Your task to perform on an android device: Search for pizza restaurants on Maps Image 0: 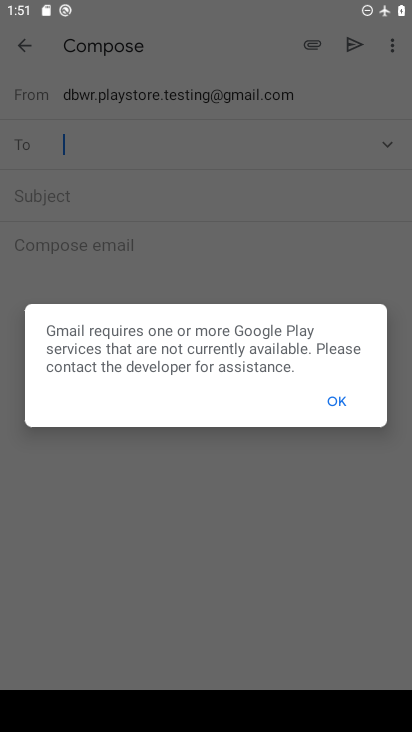
Step 0: press home button
Your task to perform on an android device: Search for pizza restaurants on Maps Image 1: 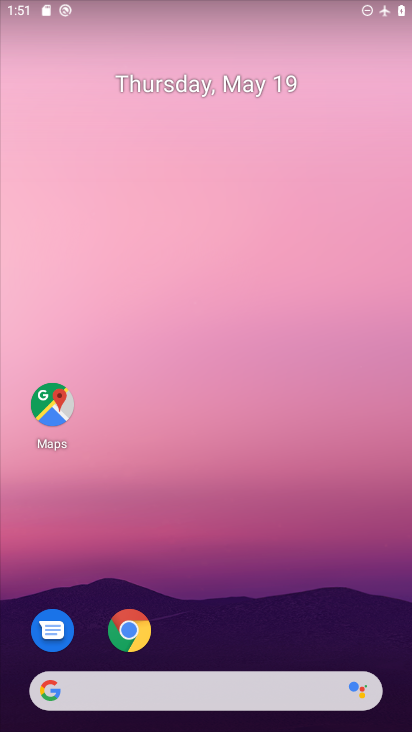
Step 1: click (60, 408)
Your task to perform on an android device: Search for pizza restaurants on Maps Image 2: 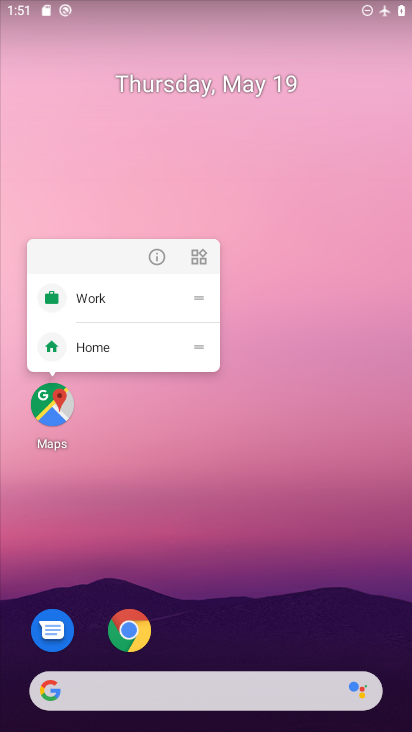
Step 2: click (60, 401)
Your task to perform on an android device: Search for pizza restaurants on Maps Image 3: 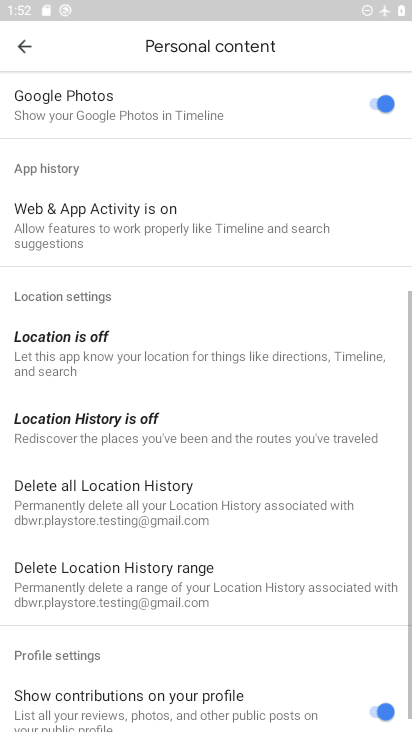
Step 3: click (18, 49)
Your task to perform on an android device: Search for pizza restaurants on Maps Image 4: 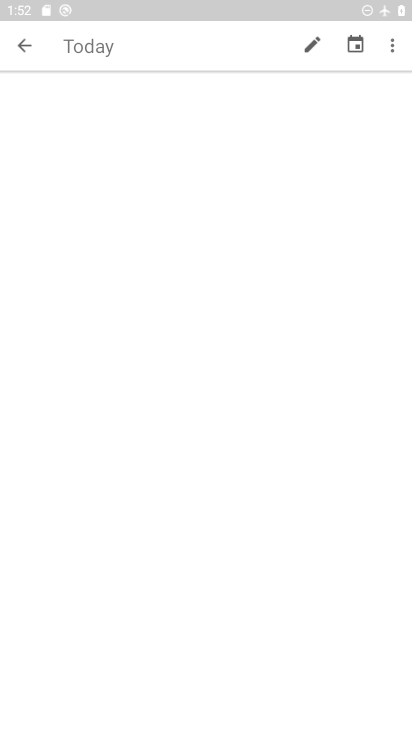
Step 4: click (18, 49)
Your task to perform on an android device: Search for pizza restaurants on Maps Image 5: 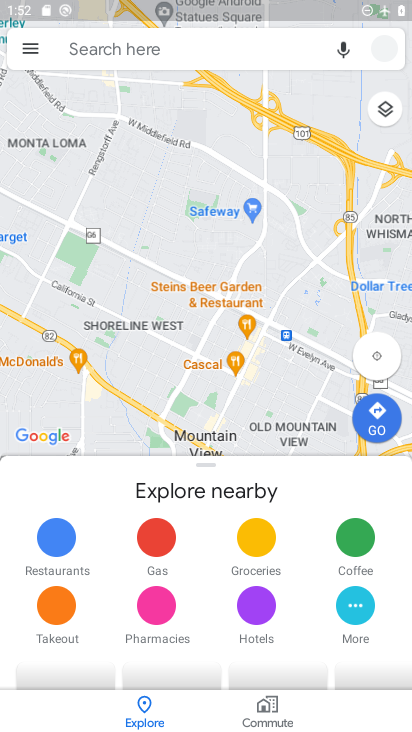
Step 5: click (117, 54)
Your task to perform on an android device: Search for pizza restaurants on Maps Image 6: 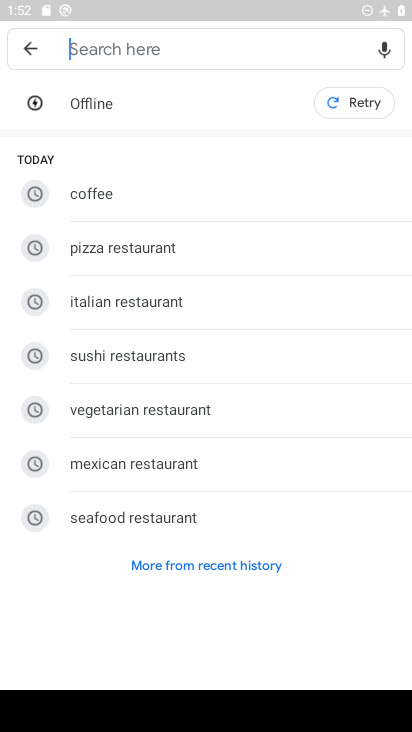
Step 6: click (192, 565)
Your task to perform on an android device: Search for pizza restaurants on Maps Image 7: 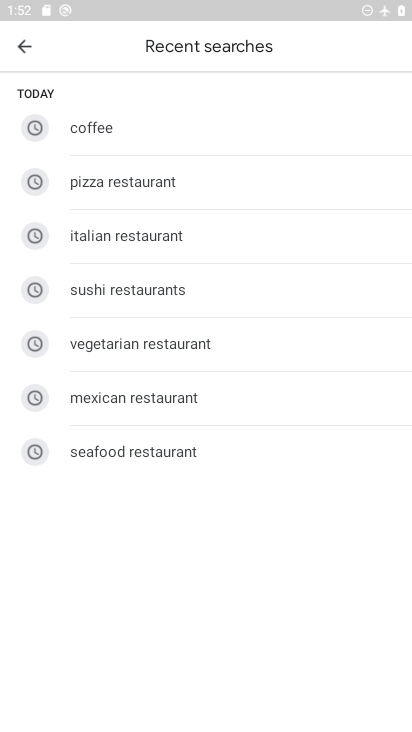
Step 7: click (115, 180)
Your task to perform on an android device: Search for pizza restaurants on Maps Image 8: 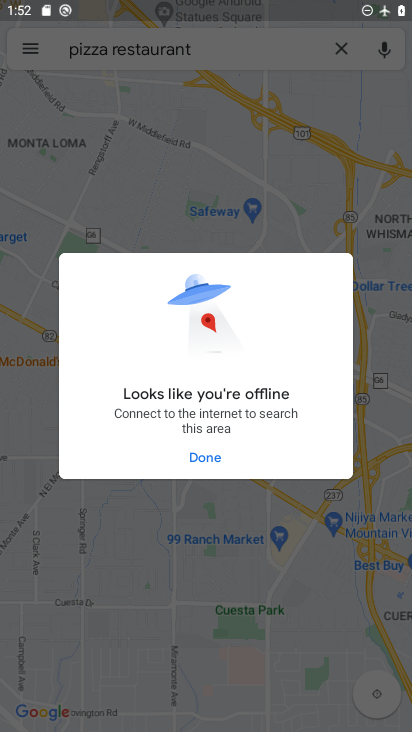
Step 8: click (181, 466)
Your task to perform on an android device: Search for pizza restaurants on Maps Image 9: 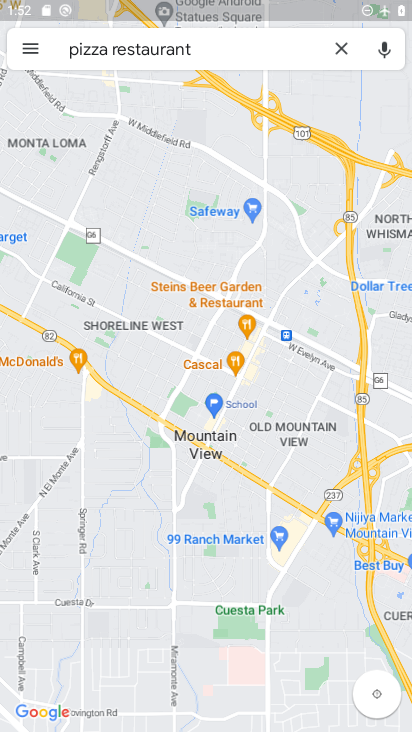
Step 9: task complete